Your task to perform on an android device: Open Yahoo.com Image 0: 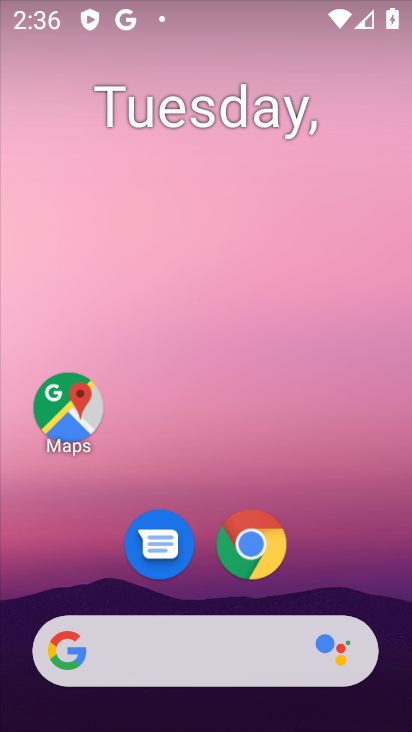
Step 0: click (240, 551)
Your task to perform on an android device: Open Yahoo.com Image 1: 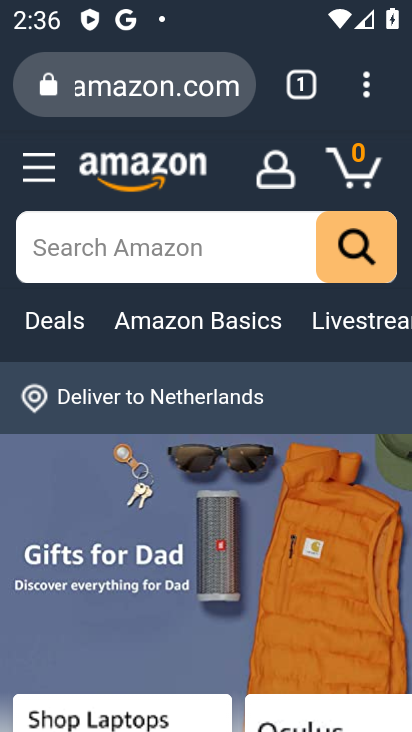
Step 1: click (307, 80)
Your task to perform on an android device: Open Yahoo.com Image 2: 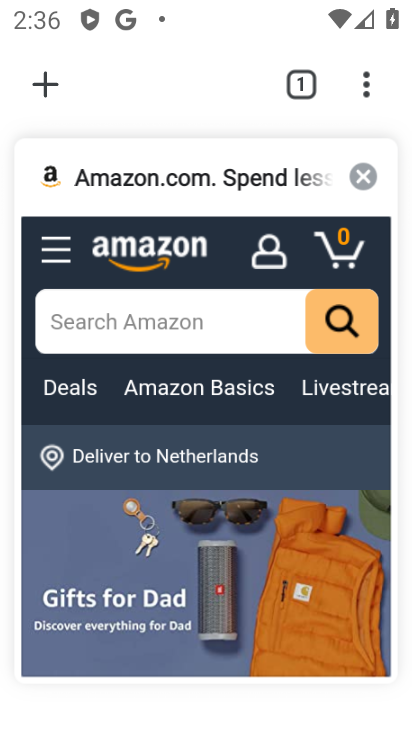
Step 2: click (45, 83)
Your task to perform on an android device: Open Yahoo.com Image 3: 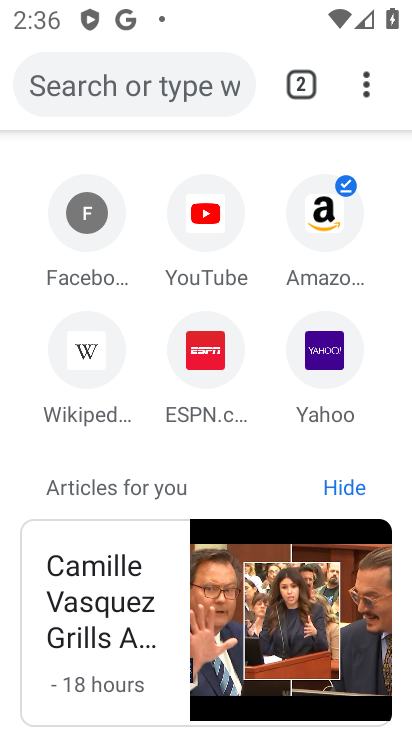
Step 3: click (301, 355)
Your task to perform on an android device: Open Yahoo.com Image 4: 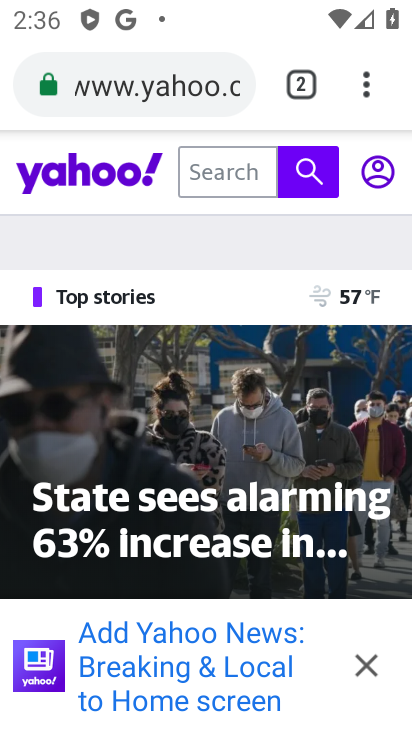
Step 4: task complete